Your task to perform on an android device: stop showing notifications on the lock screen Image 0: 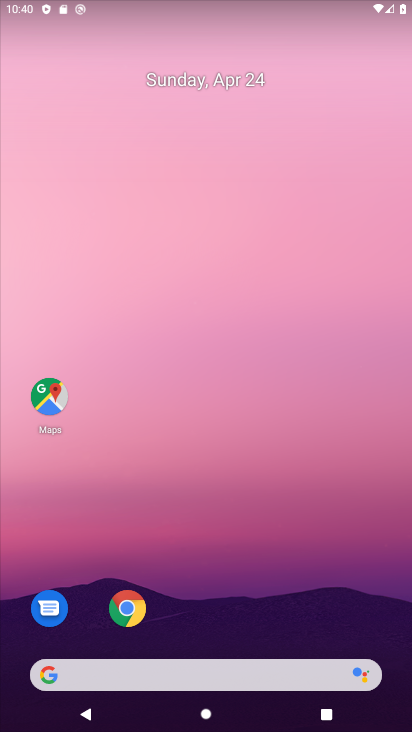
Step 0: drag from (336, 572) to (168, 33)
Your task to perform on an android device: stop showing notifications on the lock screen Image 1: 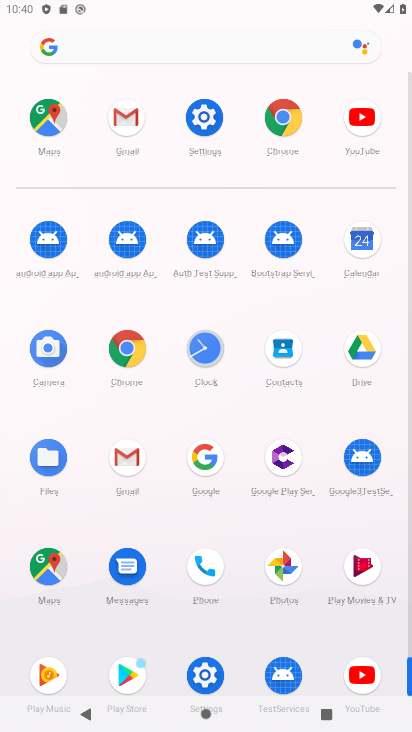
Step 1: drag from (16, 526) to (0, 229)
Your task to perform on an android device: stop showing notifications on the lock screen Image 2: 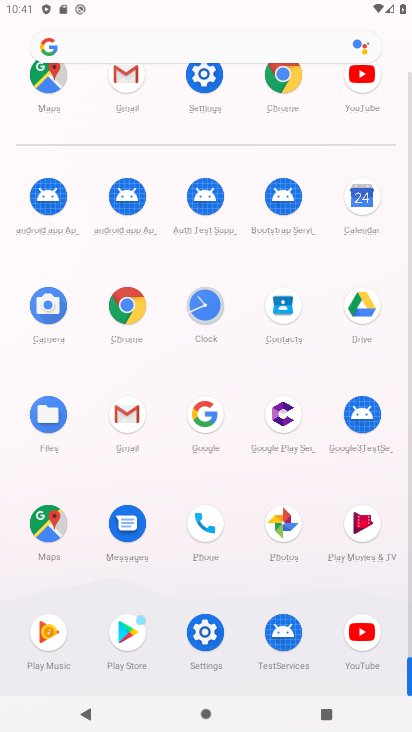
Step 2: click (203, 74)
Your task to perform on an android device: stop showing notifications on the lock screen Image 3: 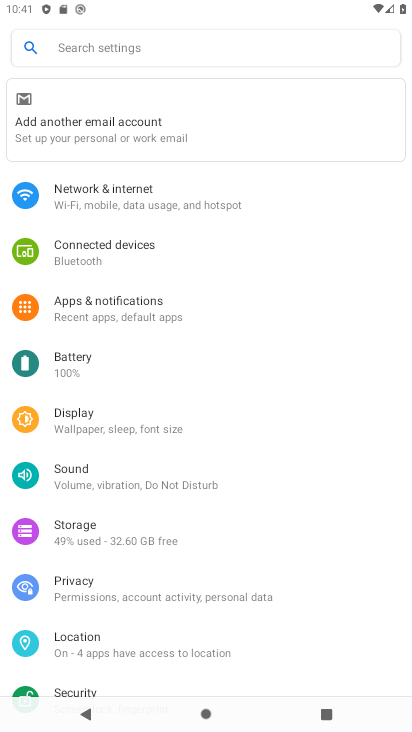
Step 3: click (106, 308)
Your task to perform on an android device: stop showing notifications on the lock screen Image 4: 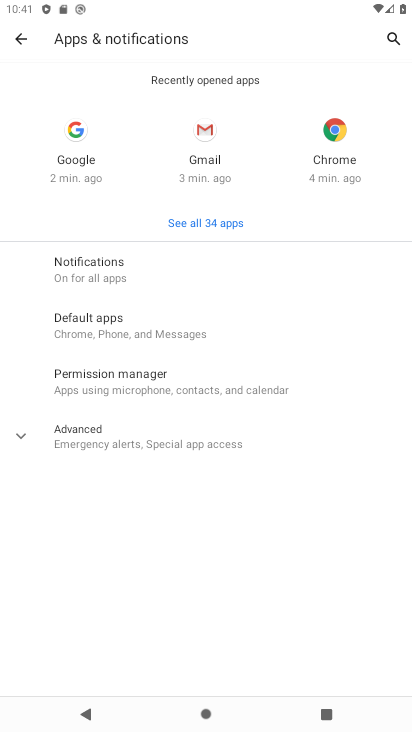
Step 4: click (113, 277)
Your task to perform on an android device: stop showing notifications on the lock screen Image 5: 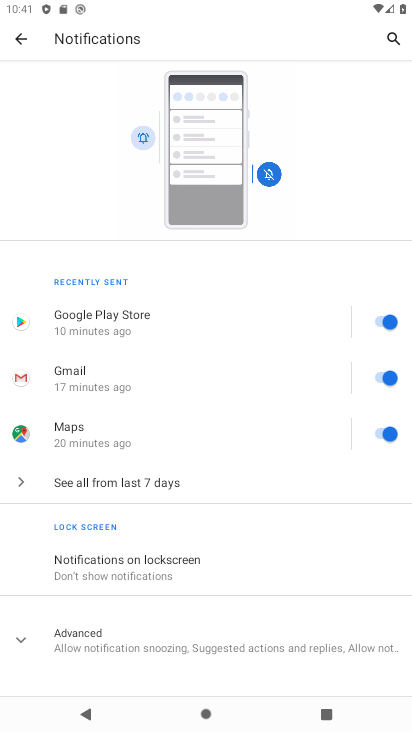
Step 5: task complete